Your task to perform on an android device: turn on bluetooth scan Image 0: 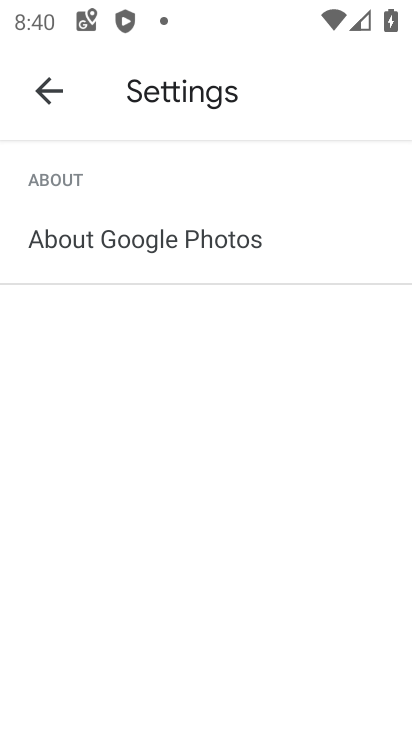
Step 0: press home button
Your task to perform on an android device: turn on bluetooth scan Image 1: 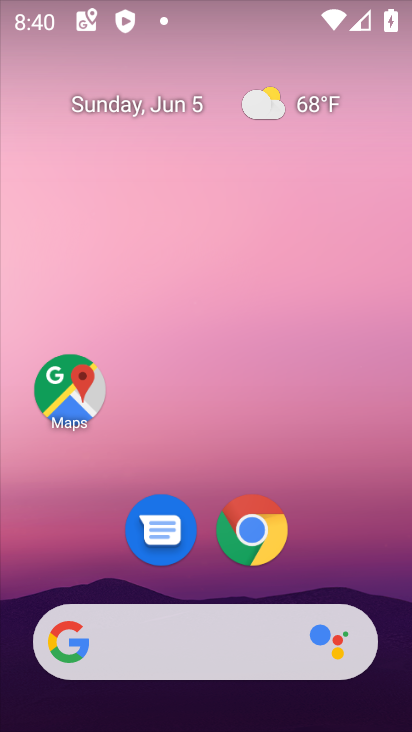
Step 1: drag from (404, 637) to (320, 115)
Your task to perform on an android device: turn on bluetooth scan Image 2: 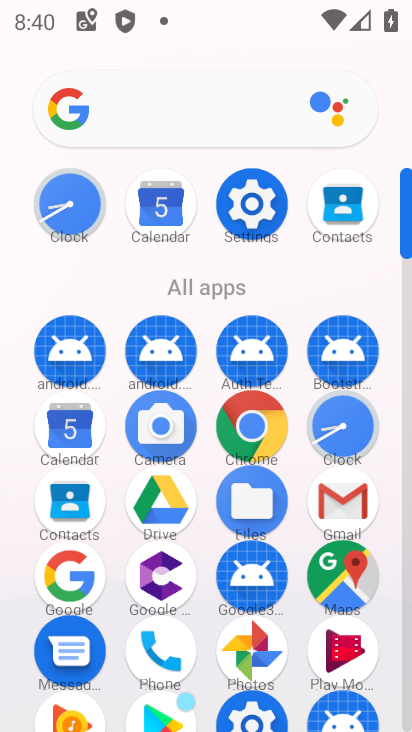
Step 2: click (403, 692)
Your task to perform on an android device: turn on bluetooth scan Image 3: 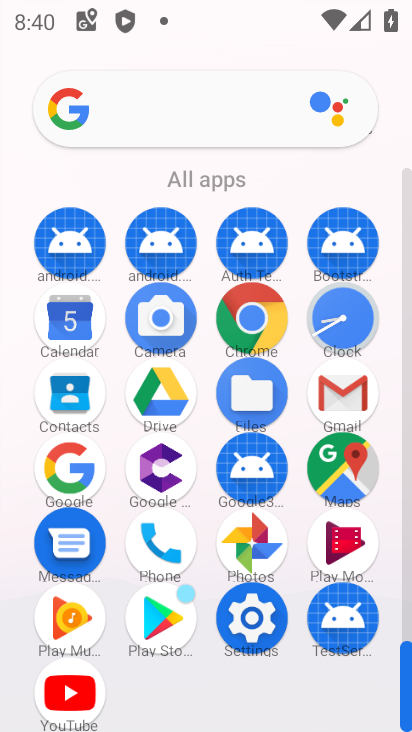
Step 3: click (250, 616)
Your task to perform on an android device: turn on bluetooth scan Image 4: 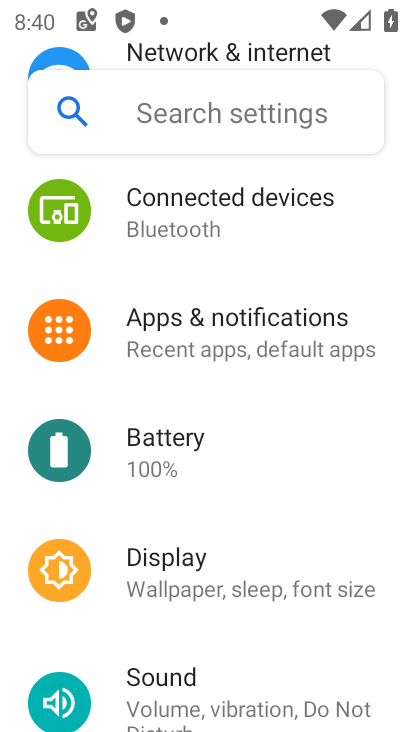
Step 4: drag from (336, 659) to (321, 312)
Your task to perform on an android device: turn on bluetooth scan Image 5: 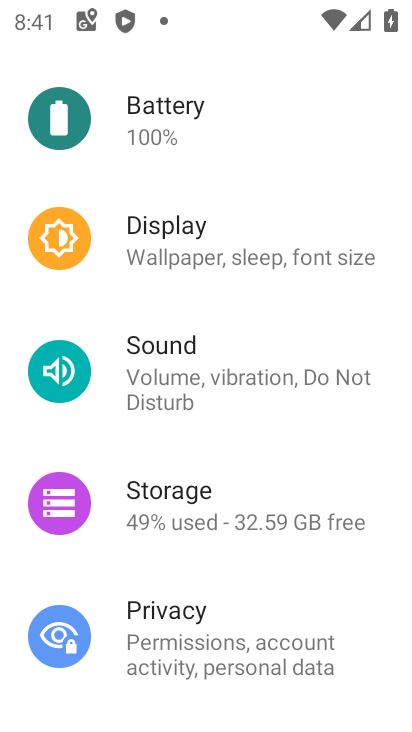
Step 5: drag from (307, 586) to (315, 202)
Your task to perform on an android device: turn on bluetooth scan Image 6: 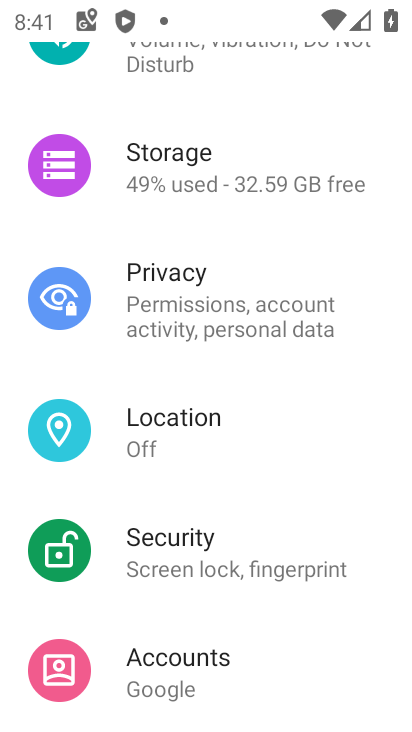
Step 6: click (161, 430)
Your task to perform on an android device: turn on bluetooth scan Image 7: 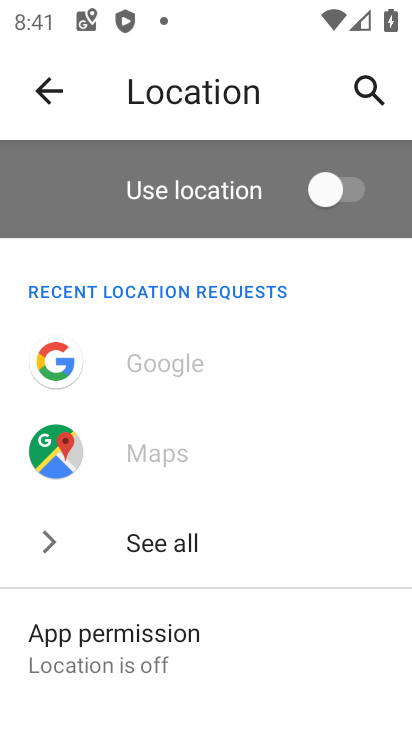
Step 7: drag from (285, 627) to (234, 136)
Your task to perform on an android device: turn on bluetooth scan Image 8: 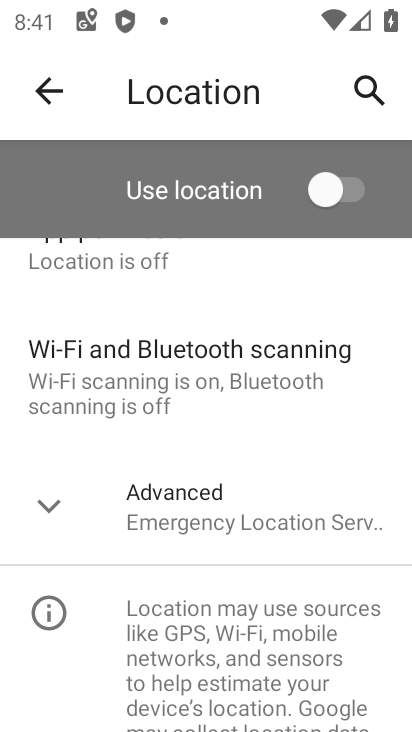
Step 8: click (145, 367)
Your task to perform on an android device: turn on bluetooth scan Image 9: 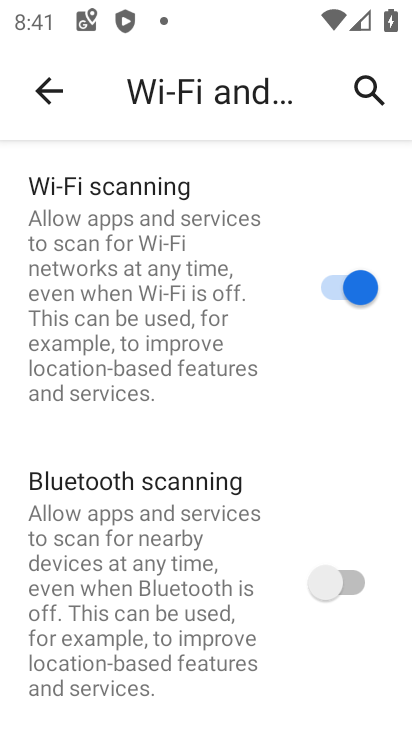
Step 9: click (343, 576)
Your task to perform on an android device: turn on bluetooth scan Image 10: 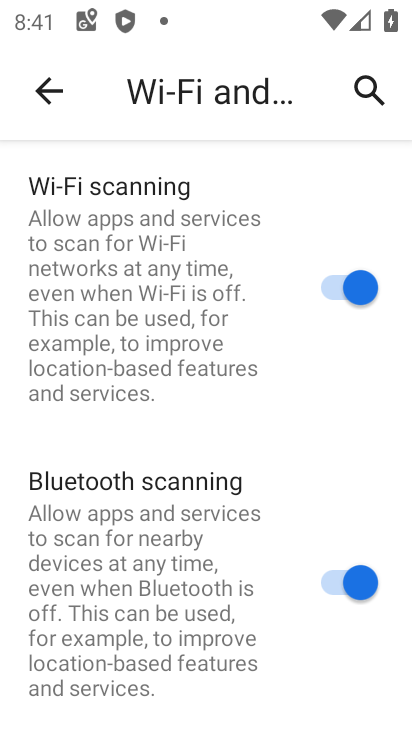
Step 10: task complete